Your task to perform on an android device: visit the assistant section in the google photos Image 0: 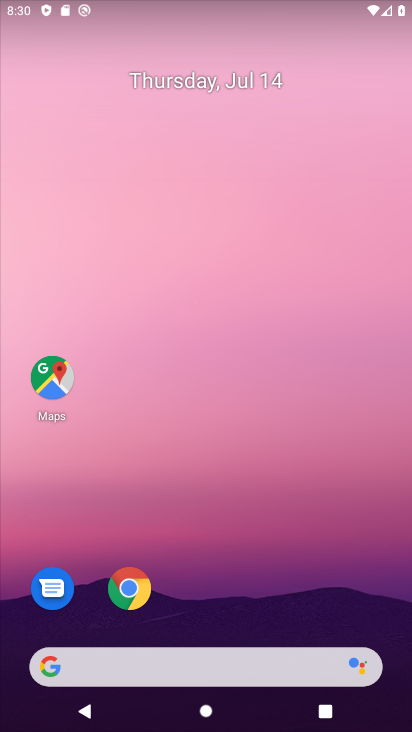
Step 0: drag from (215, 602) to (222, 138)
Your task to perform on an android device: visit the assistant section in the google photos Image 1: 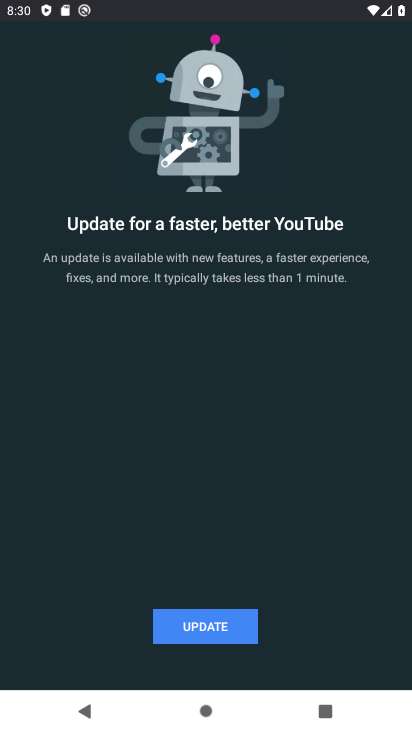
Step 1: press home button
Your task to perform on an android device: visit the assistant section in the google photos Image 2: 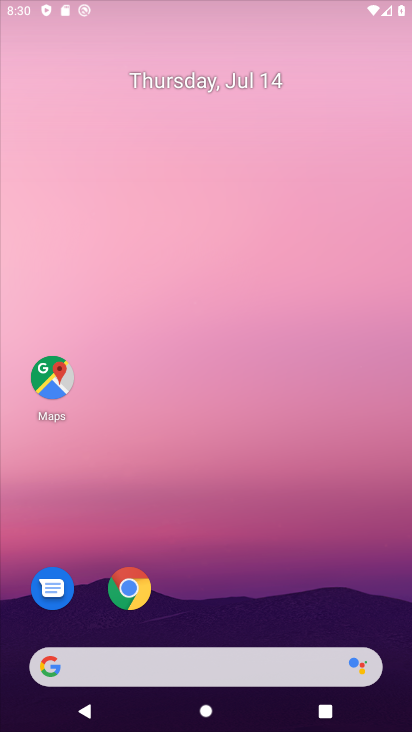
Step 2: drag from (260, 549) to (297, 130)
Your task to perform on an android device: visit the assistant section in the google photos Image 3: 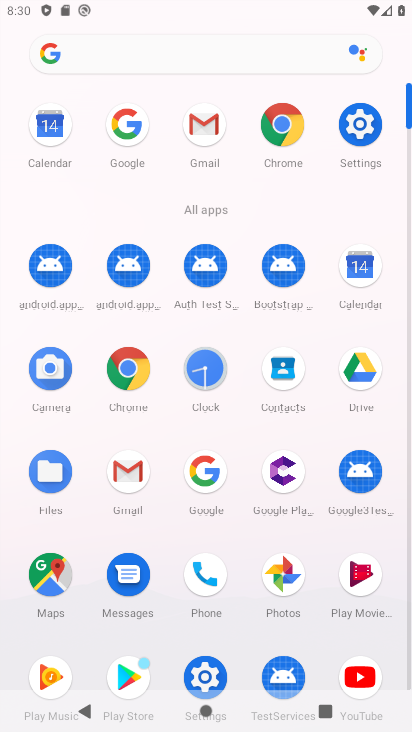
Step 3: click (290, 576)
Your task to perform on an android device: visit the assistant section in the google photos Image 4: 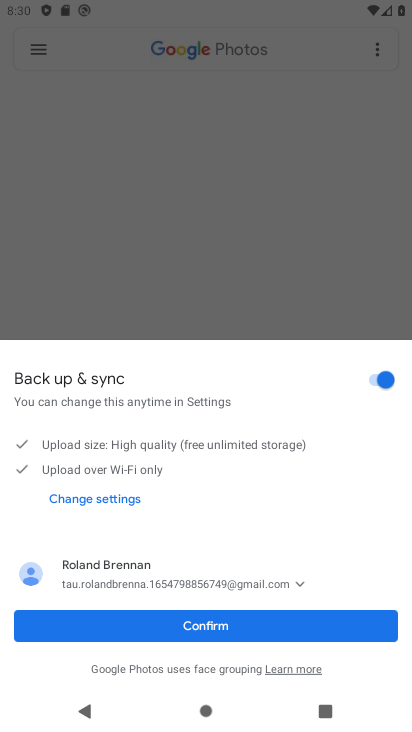
Step 4: click (221, 627)
Your task to perform on an android device: visit the assistant section in the google photos Image 5: 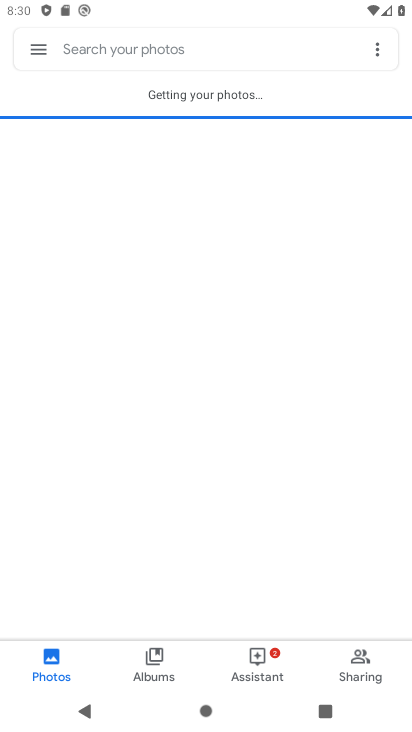
Step 5: click (251, 658)
Your task to perform on an android device: visit the assistant section in the google photos Image 6: 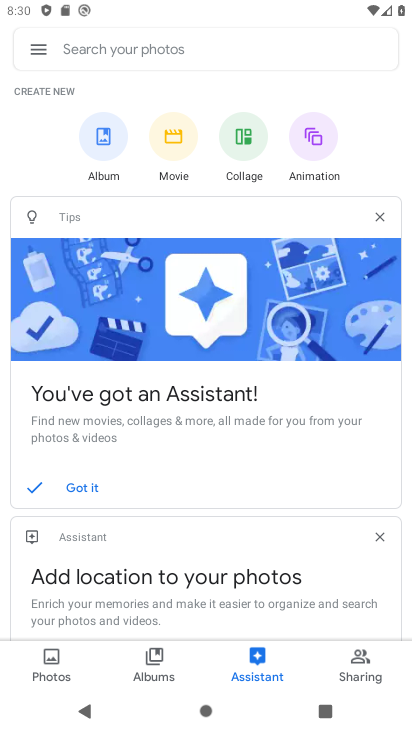
Step 6: task complete